Your task to perform on an android device: turn on showing notifications on the lock screen Image 0: 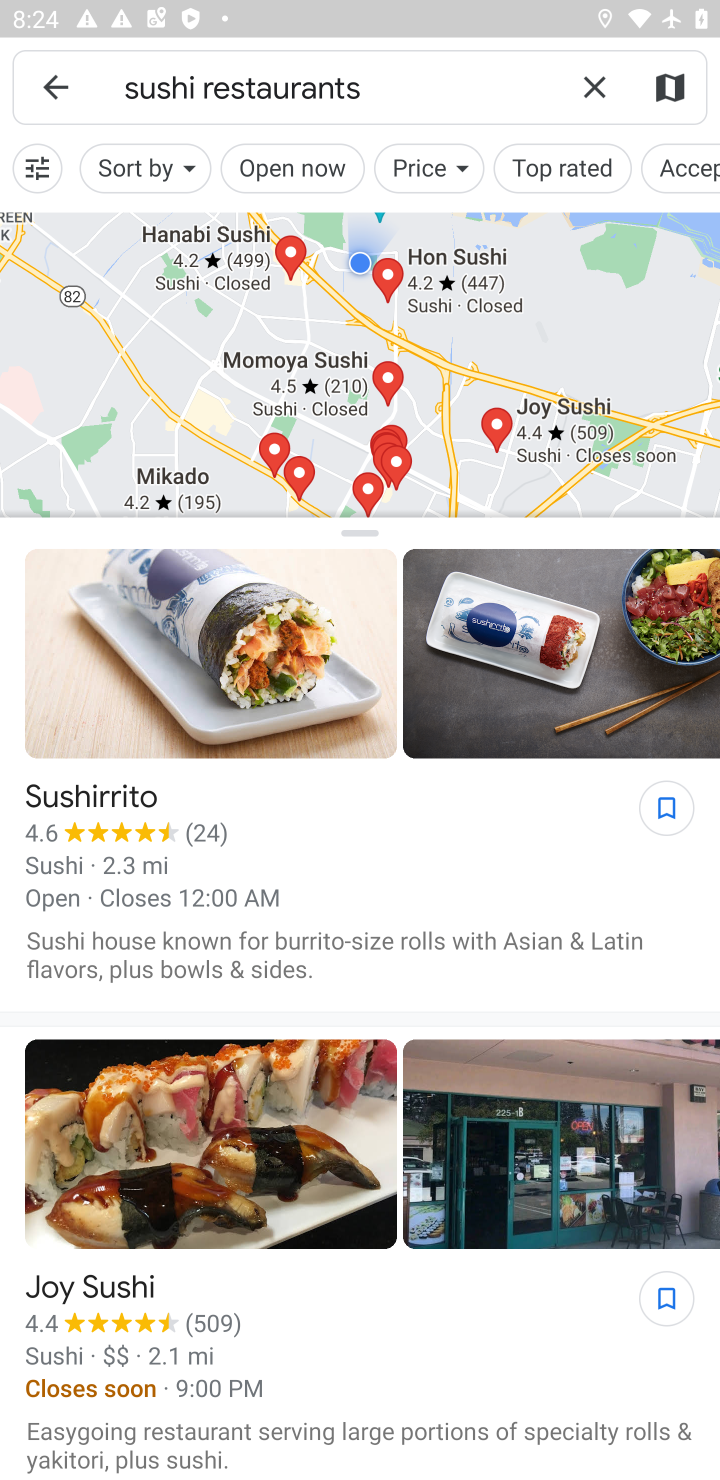
Step 0: press home button
Your task to perform on an android device: turn on showing notifications on the lock screen Image 1: 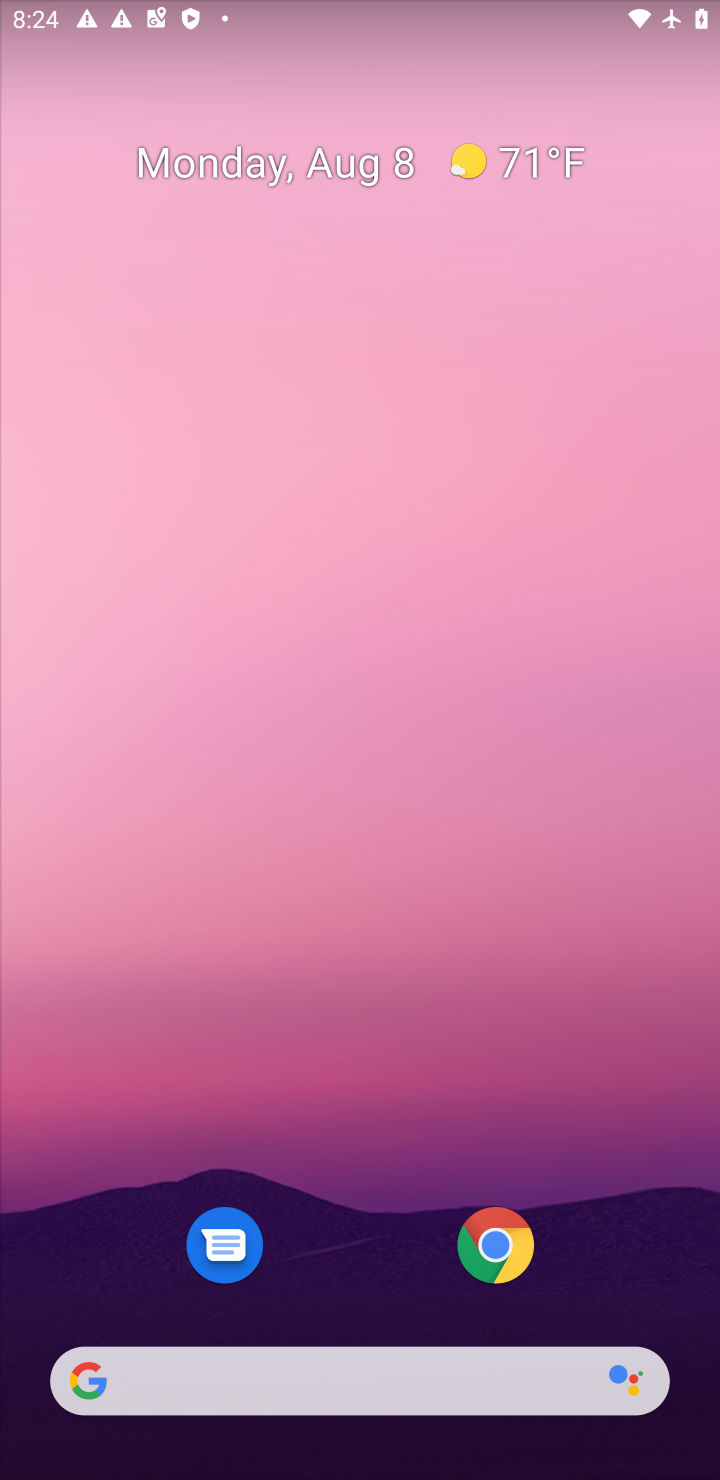
Step 1: drag from (328, 1239) to (397, 115)
Your task to perform on an android device: turn on showing notifications on the lock screen Image 2: 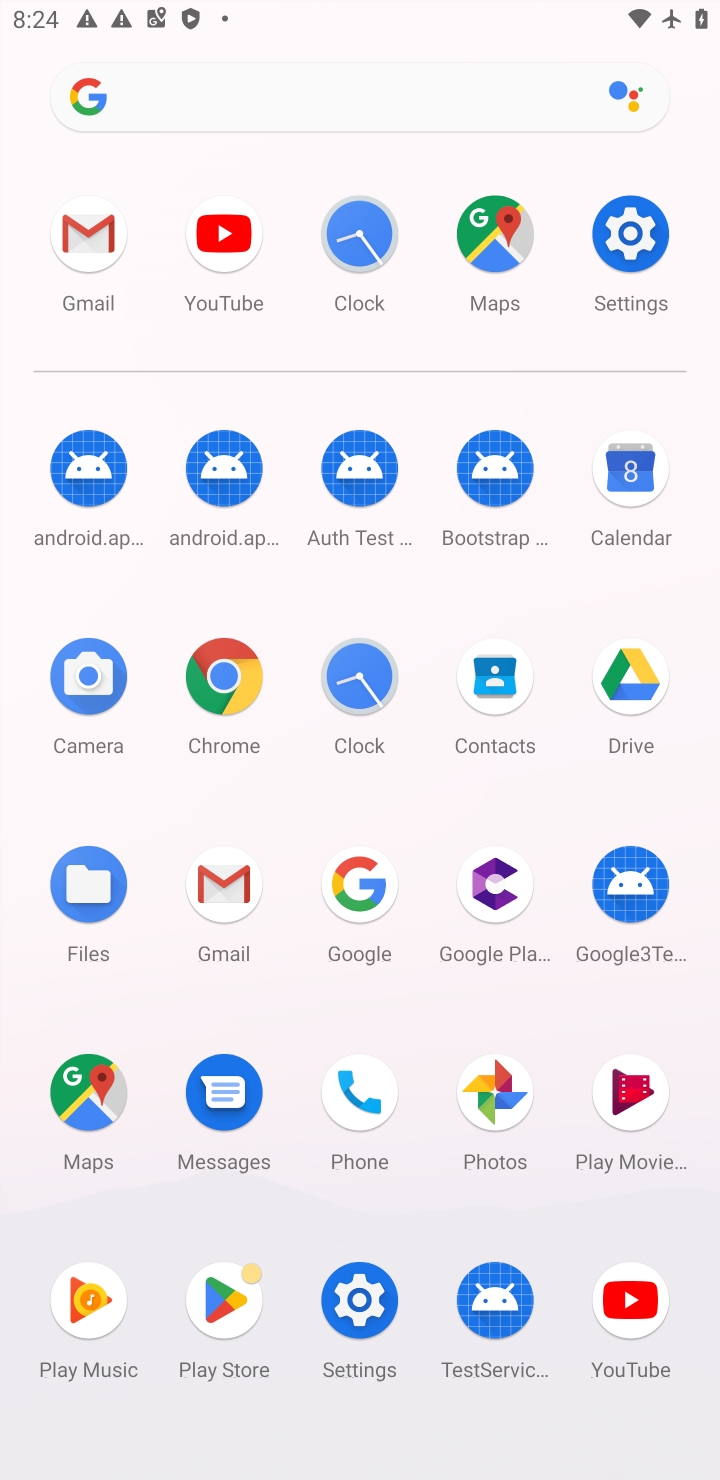
Step 2: click (639, 255)
Your task to perform on an android device: turn on showing notifications on the lock screen Image 3: 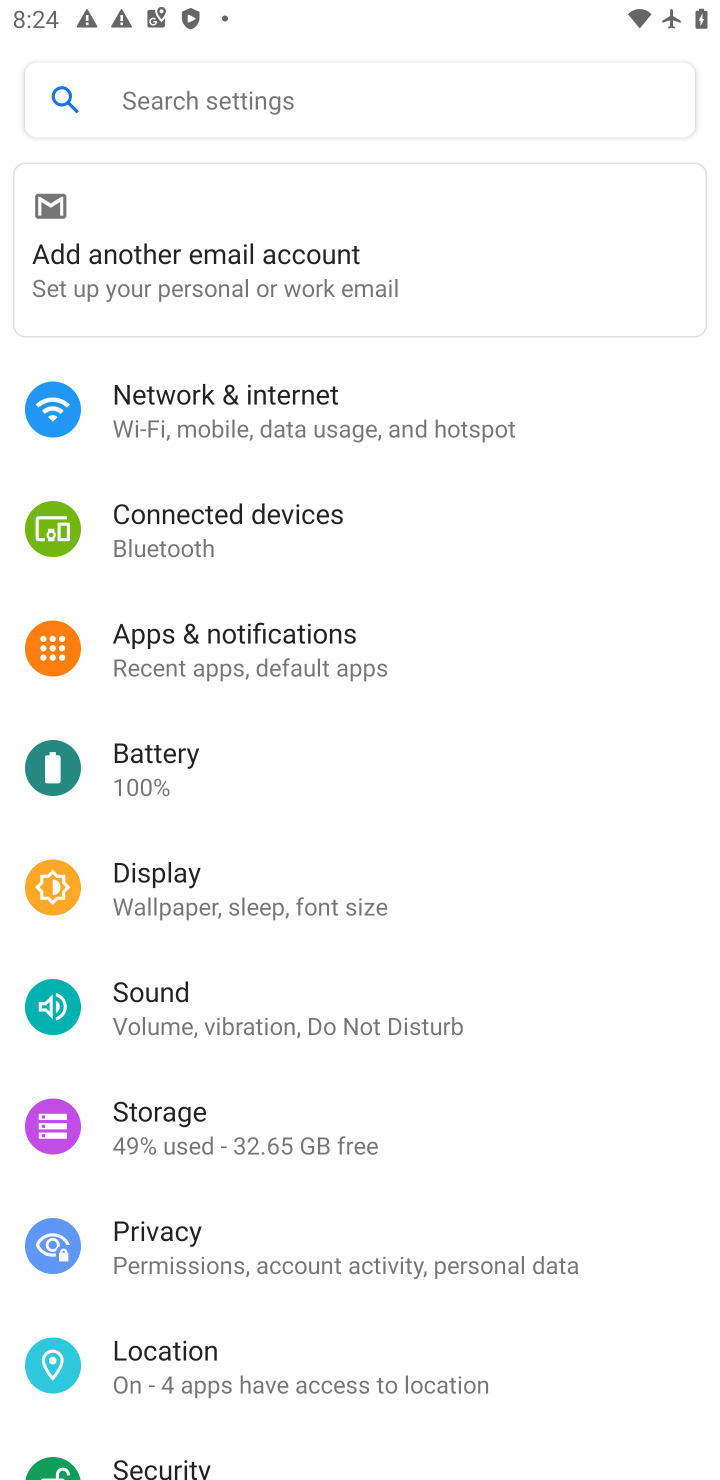
Step 3: click (249, 624)
Your task to perform on an android device: turn on showing notifications on the lock screen Image 4: 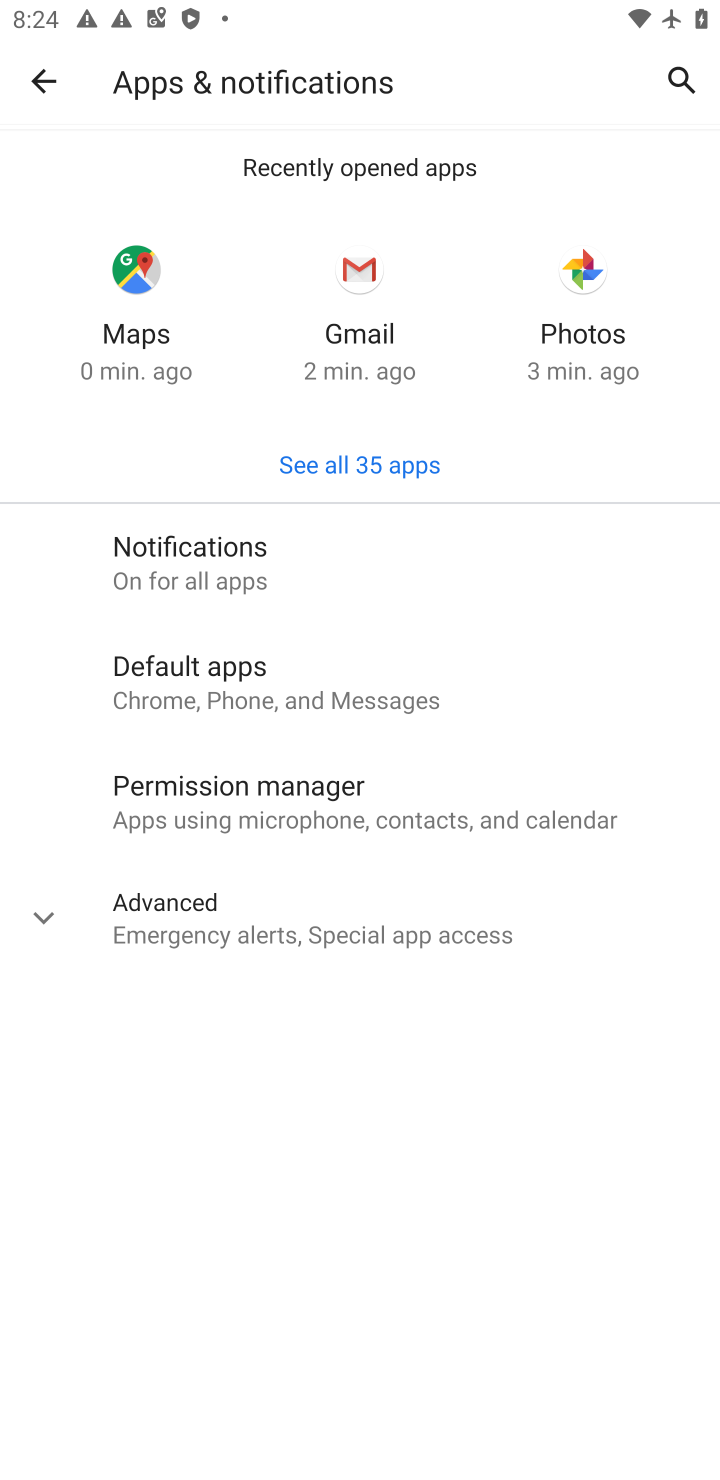
Step 4: click (219, 563)
Your task to perform on an android device: turn on showing notifications on the lock screen Image 5: 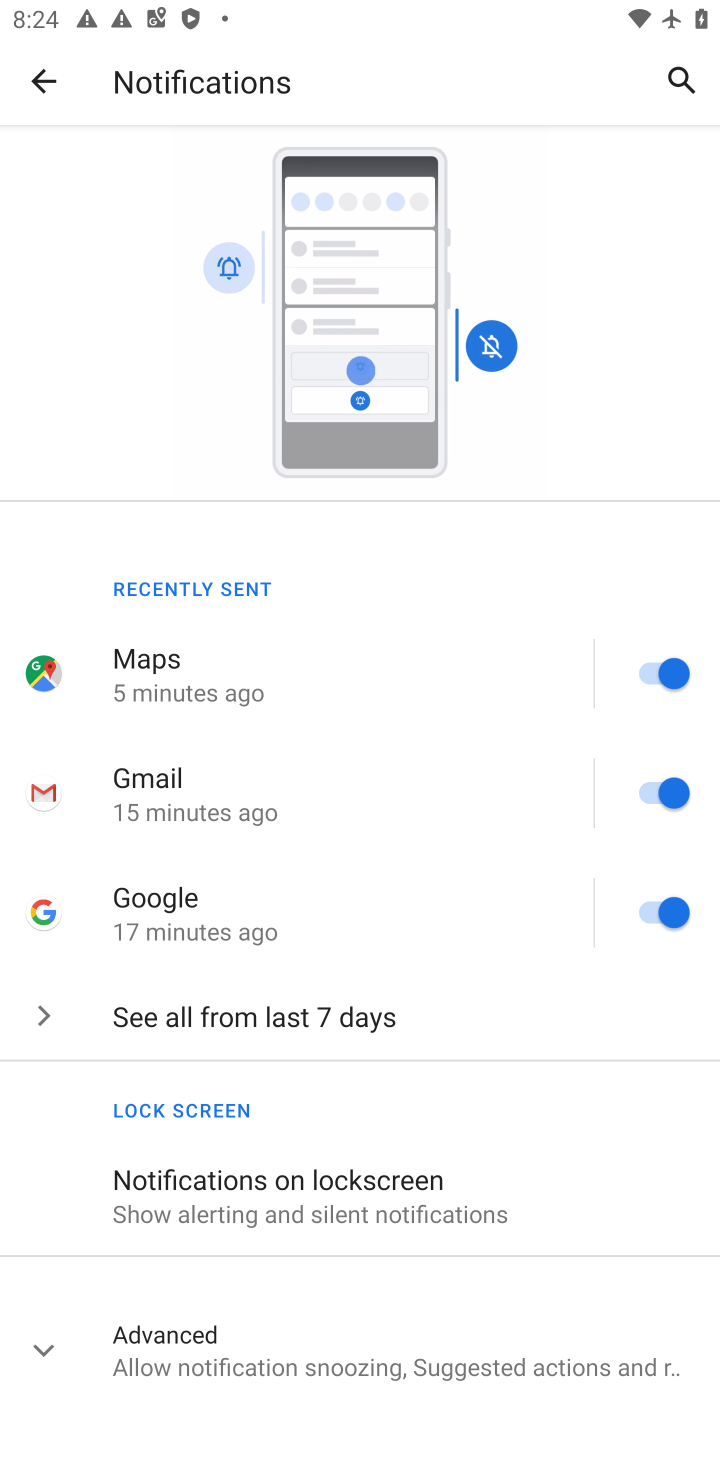
Step 5: click (334, 1214)
Your task to perform on an android device: turn on showing notifications on the lock screen Image 6: 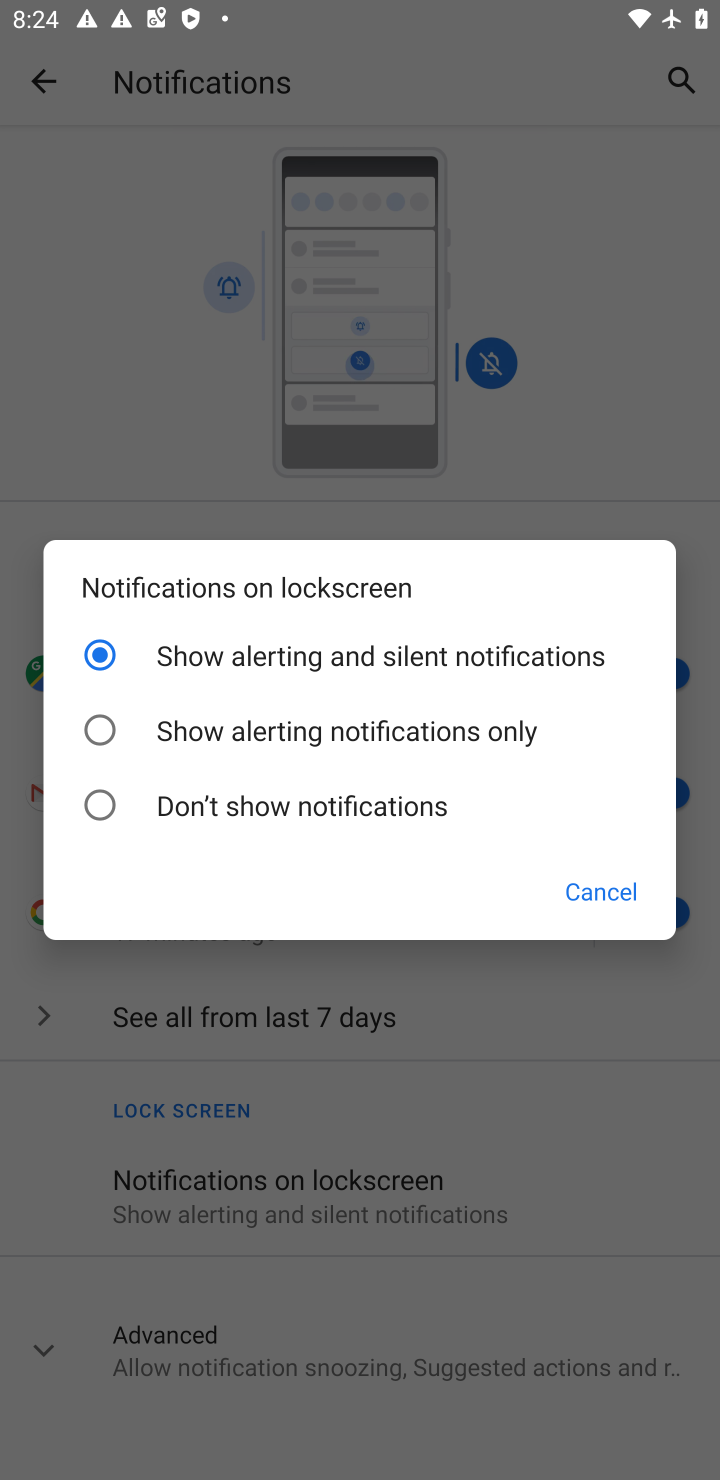
Step 6: task complete